Your task to perform on an android device: turn on improve location accuracy Image 0: 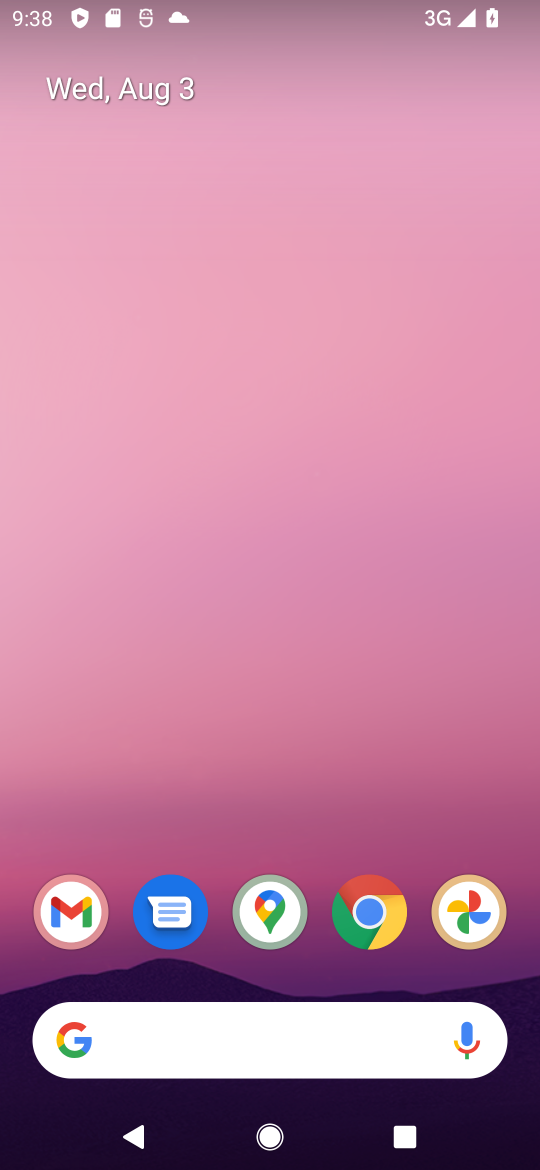
Step 0: drag from (426, 823) to (316, 175)
Your task to perform on an android device: turn on improve location accuracy Image 1: 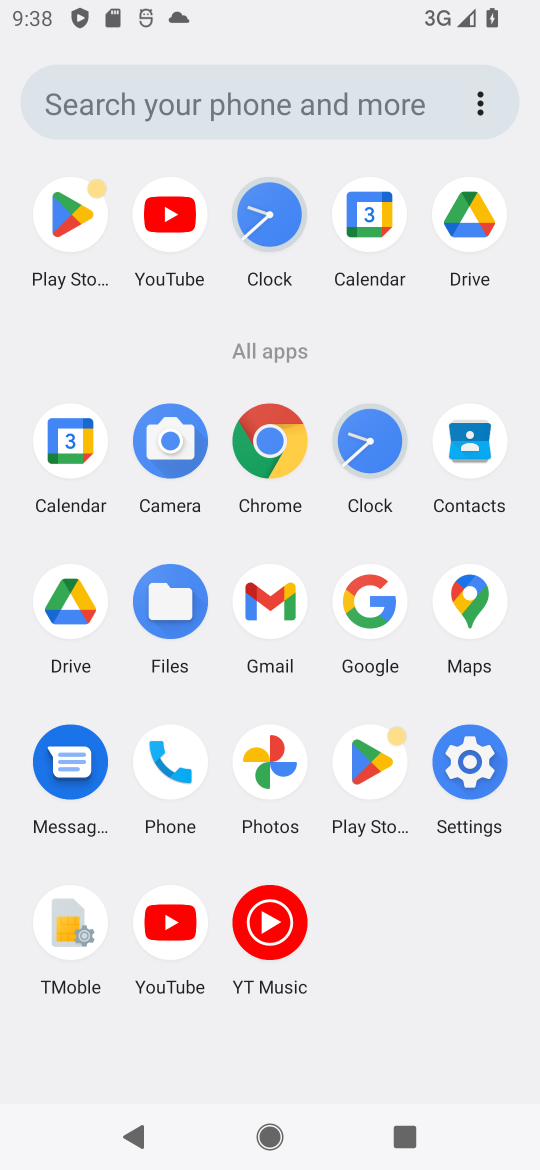
Step 1: click (495, 777)
Your task to perform on an android device: turn on improve location accuracy Image 2: 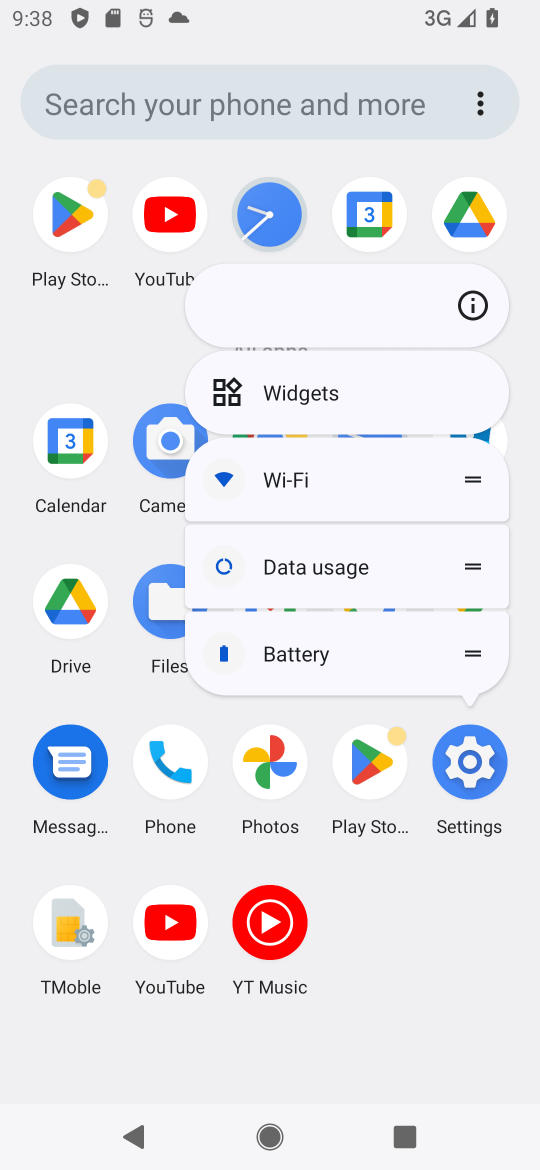
Step 2: click (494, 780)
Your task to perform on an android device: turn on improve location accuracy Image 3: 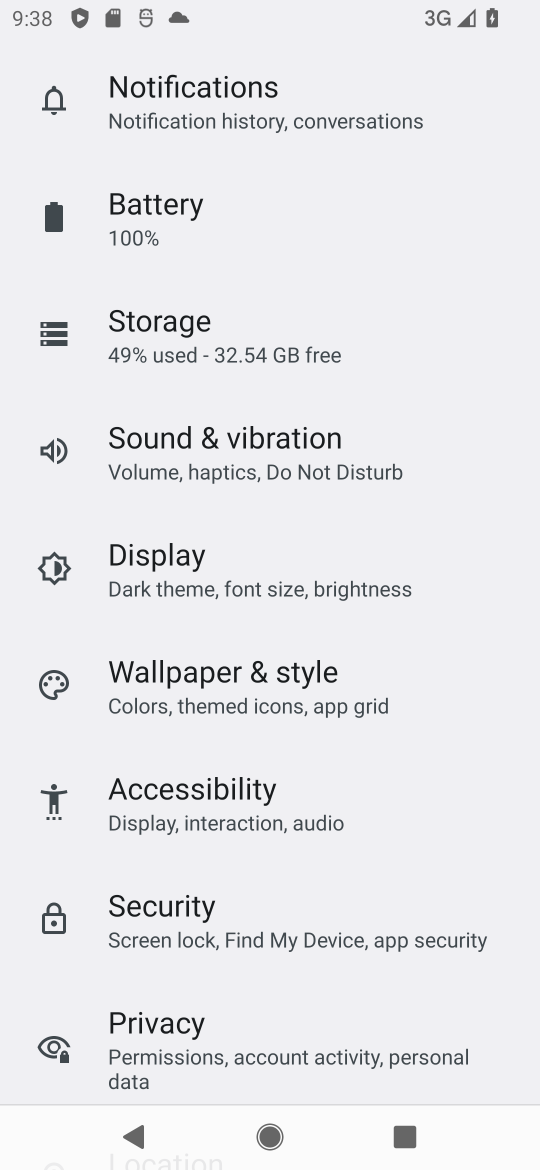
Step 3: drag from (205, 1011) to (61, 338)
Your task to perform on an android device: turn on improve location accuracy Image 4: 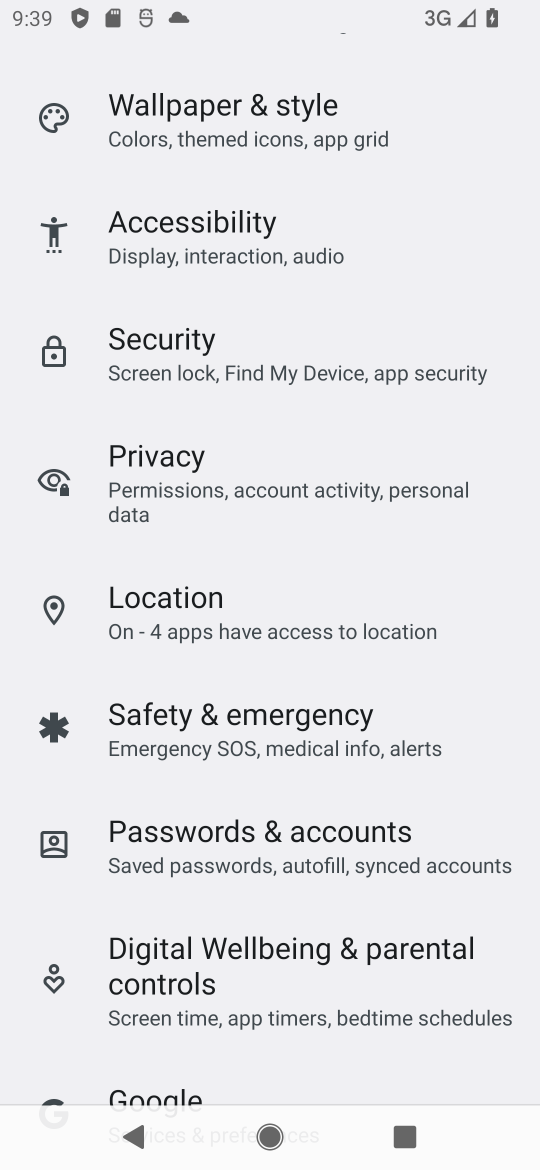
Step 4: click (192, 621)
Your task to perform on an android device: turn on improve location accuracy Image 5: 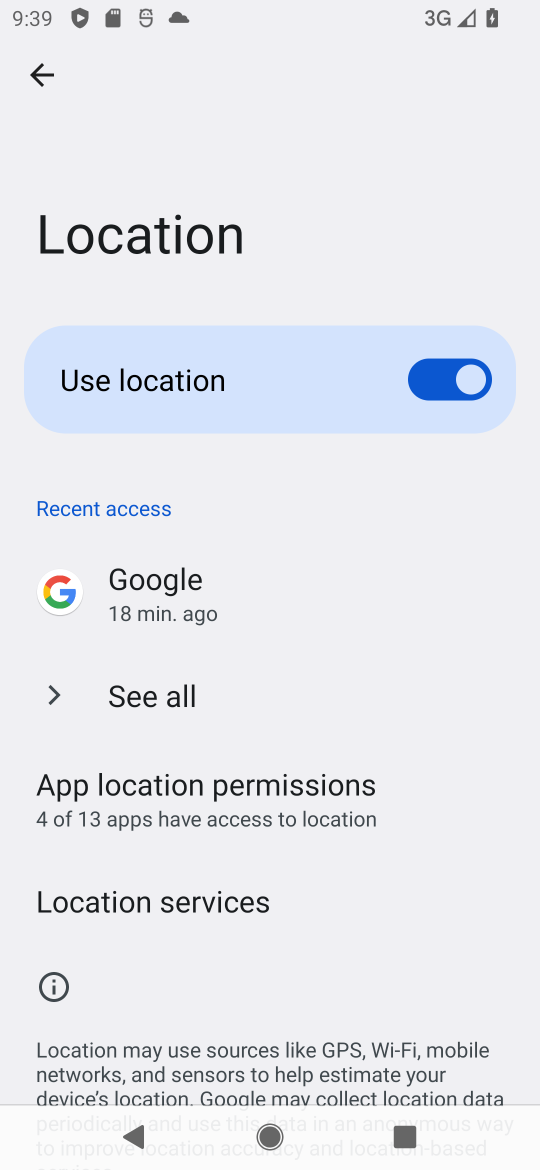
Step 5: drag from (259, 950) to (195, 476)
Your task to perform on an android device: turn on improve location accuracy Image 6: 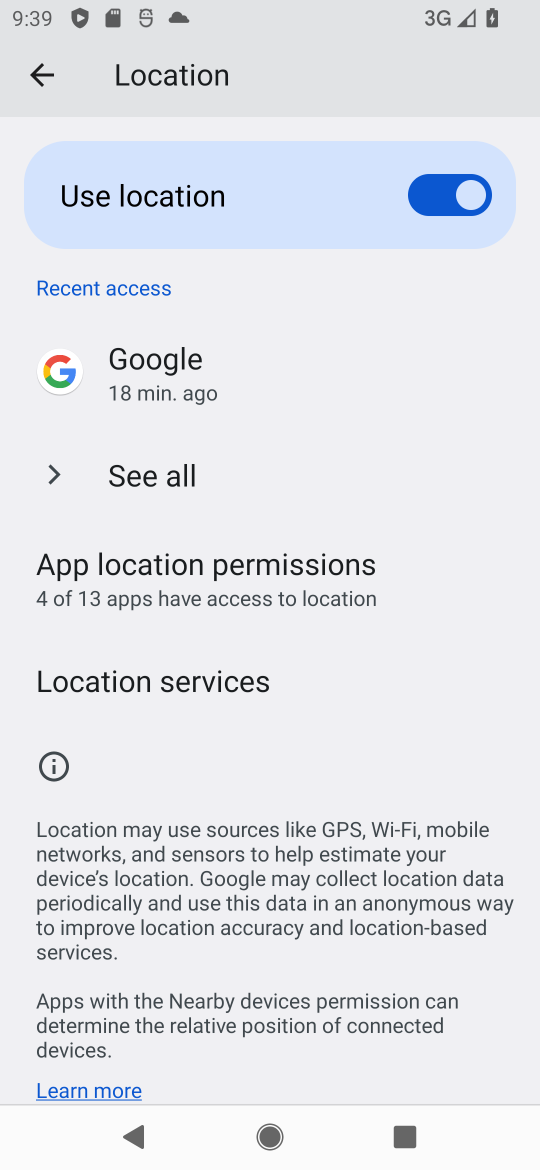
Step 6: drag from (268, 928) to (208, 451)
Your task to perform on an android device: turn on improve location accuracy Image 7: 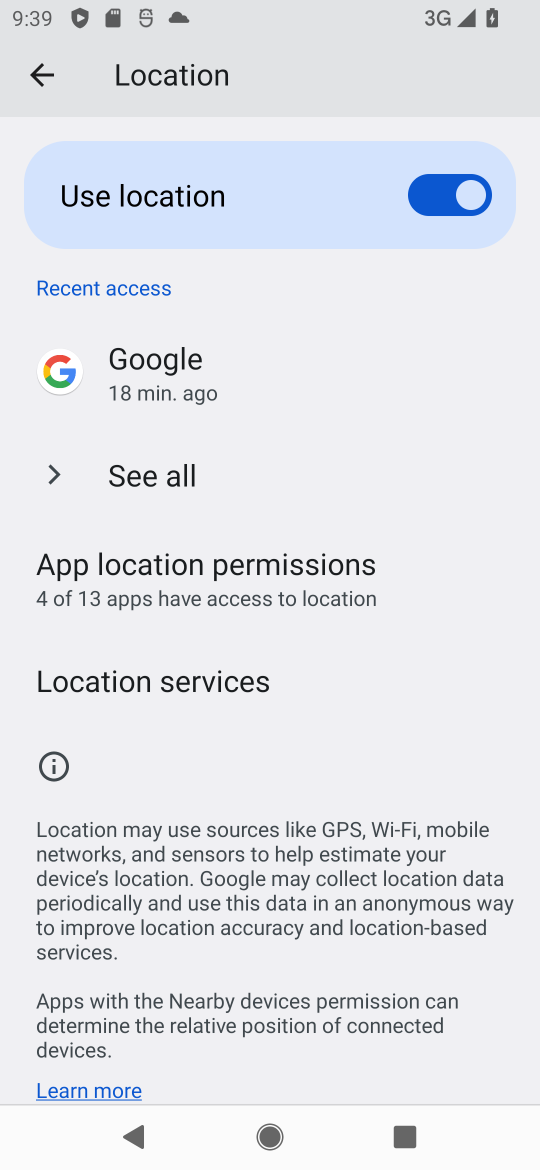
Step 7: drag from (209, 527) to (275, 933)
Your task to perform on an android device: turn on improve location accuracy Image 8: 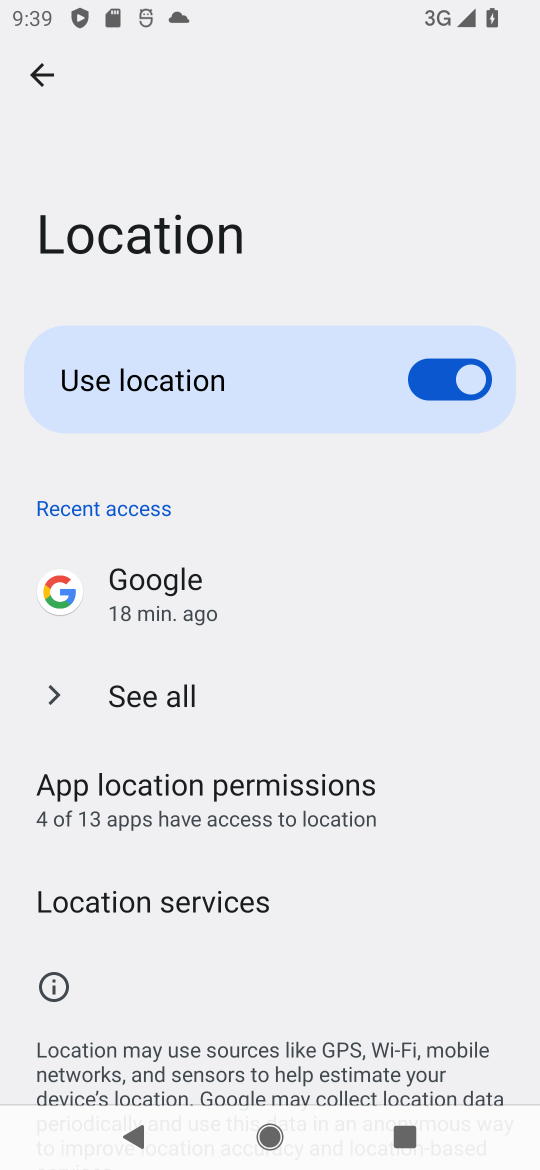
Step 8: click (216, 807)
Your task to perform on an android device: turn on improve location accuracy Image 9: 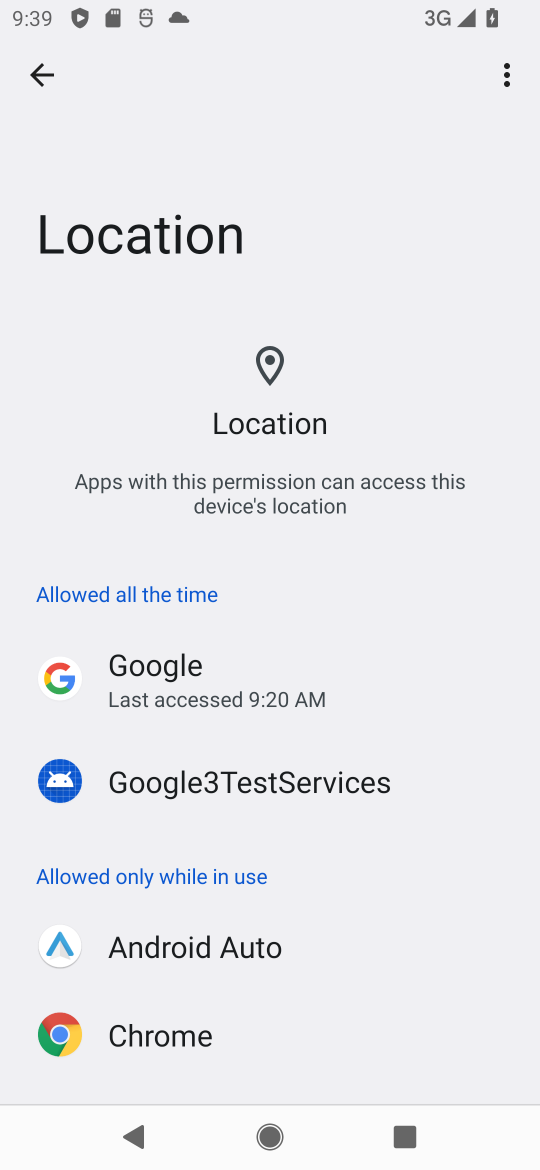
Step 9: task complete